Your task to perform on an android device: toggle javascript in the chrome app Image 0: 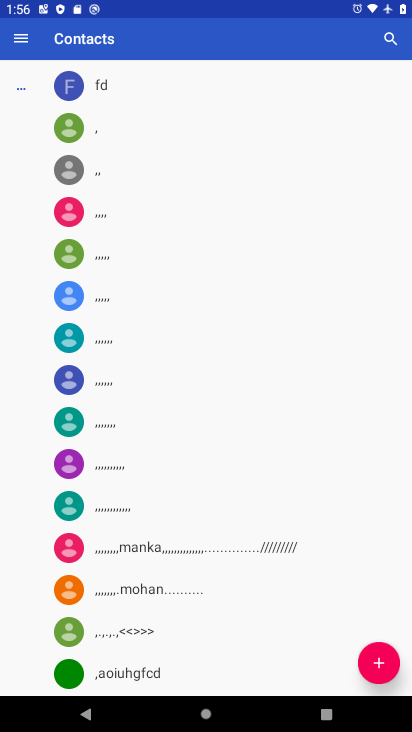
Step 0: press home button
Your task to perform on an android device: toggle javascript in the chrome app Image 1: 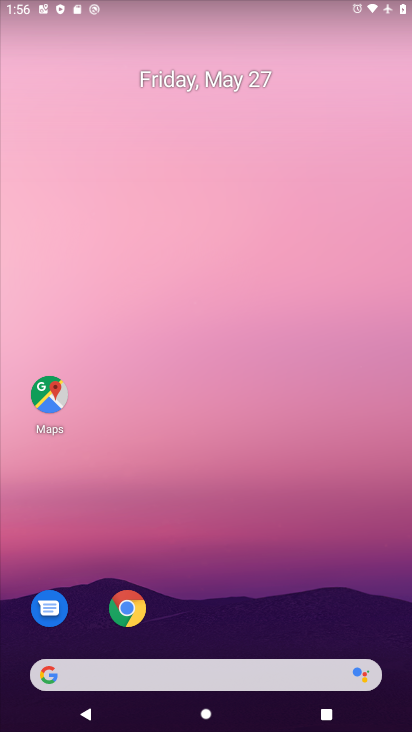
Step 1: click (128, 610)
Your task to perform on an android device: toggle javascript in the chrome app Image 2: 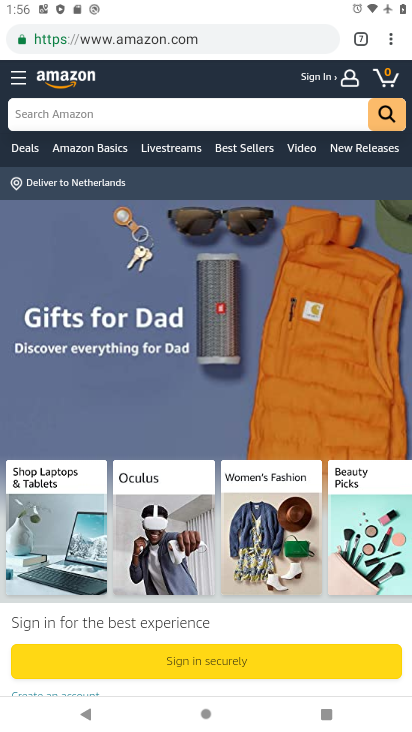
Step 2: drag from (387, 32) to (292, 468)
Your task to perform on an android device: toggle javascript in the chrome app Image 3: 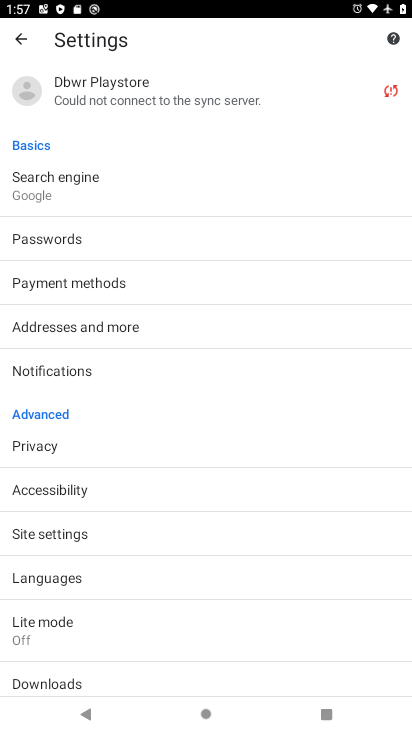
Step 3: click (79, 535)
Your task to perform on an android device: toggle javascript in the chrome app Image 4: 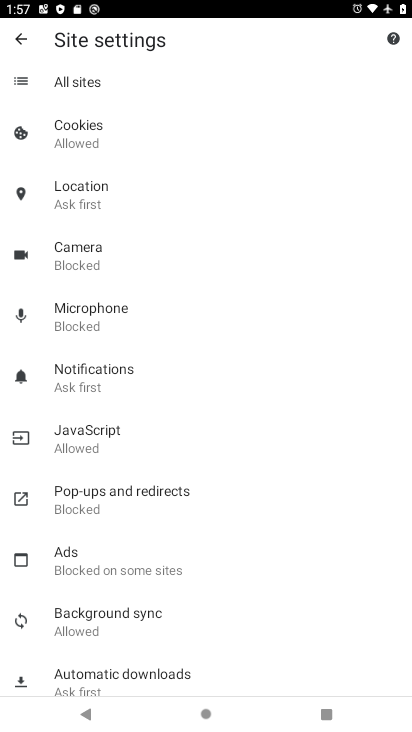
Step 4: click (83, 437)
Your task to perform on an android device: toggle javascript in the chrome app Image 5: 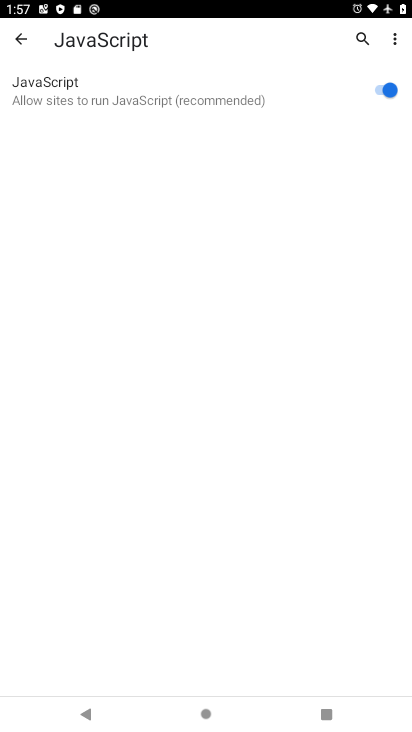
Step 5: click (379, 89)
Your task to perform on an android device: toggle javascript in the chrome app Image 6: 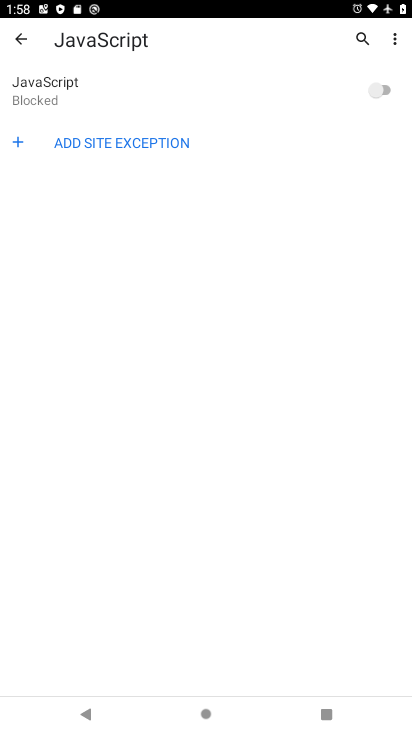
Step 6: task complete